Your task to perform on an android device: What is the capital of Japan? Image 0: 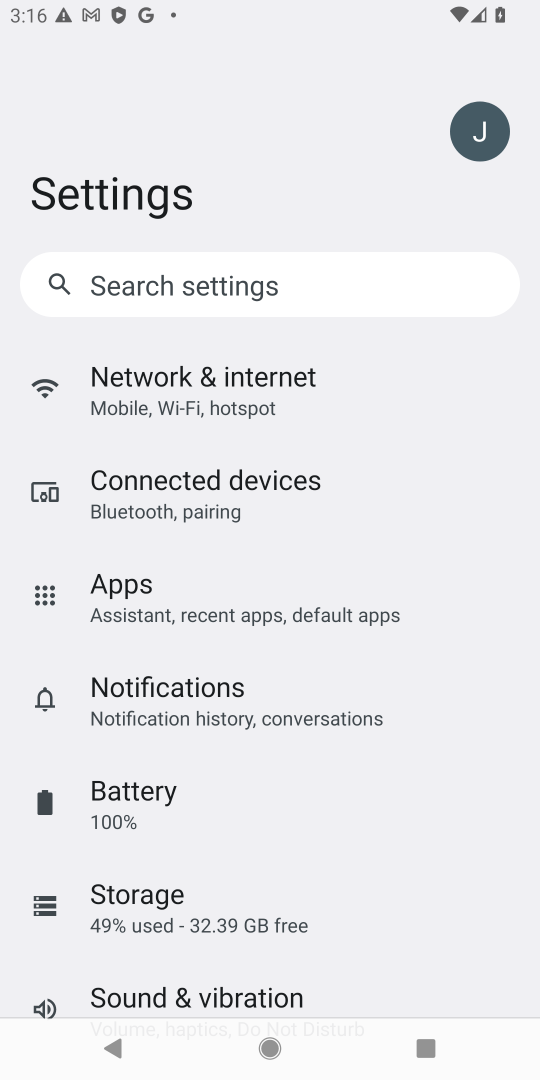
Step 0: press home button
Your task to perform on an android device: What is the capital of Japan? Image 1: 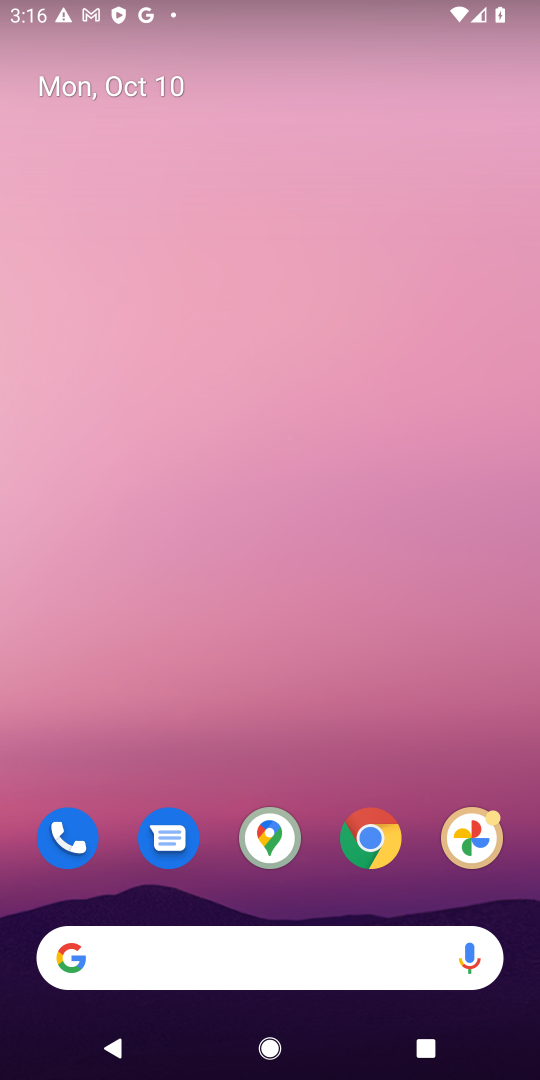
Step 1: click (379, 844)
Your task to perform on an android device: What is the capital of Japan? Image 2: 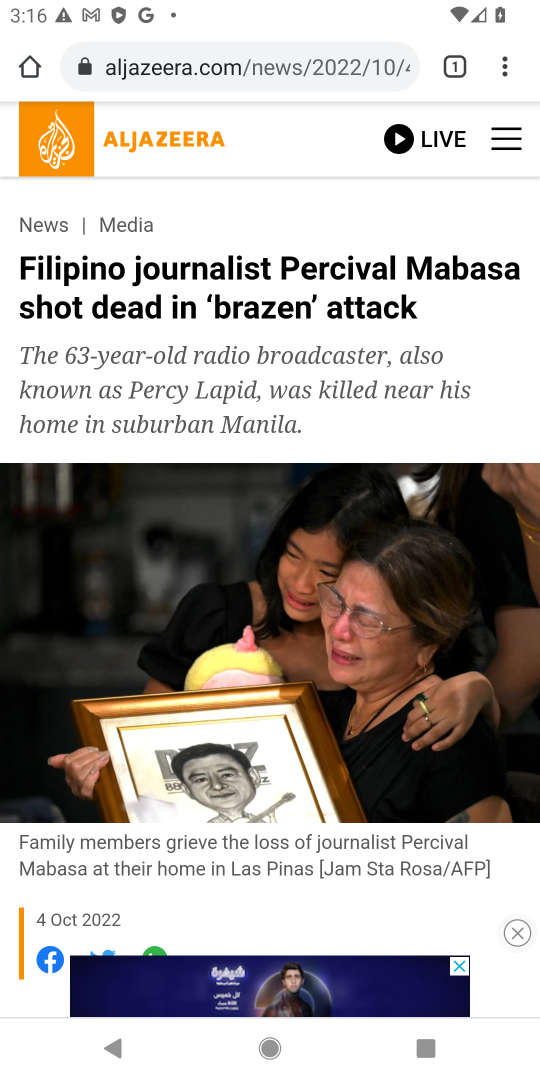
Step 2: click (247, 61)
Your task to perform on an android device: What is the capital of Japan? Image 3: 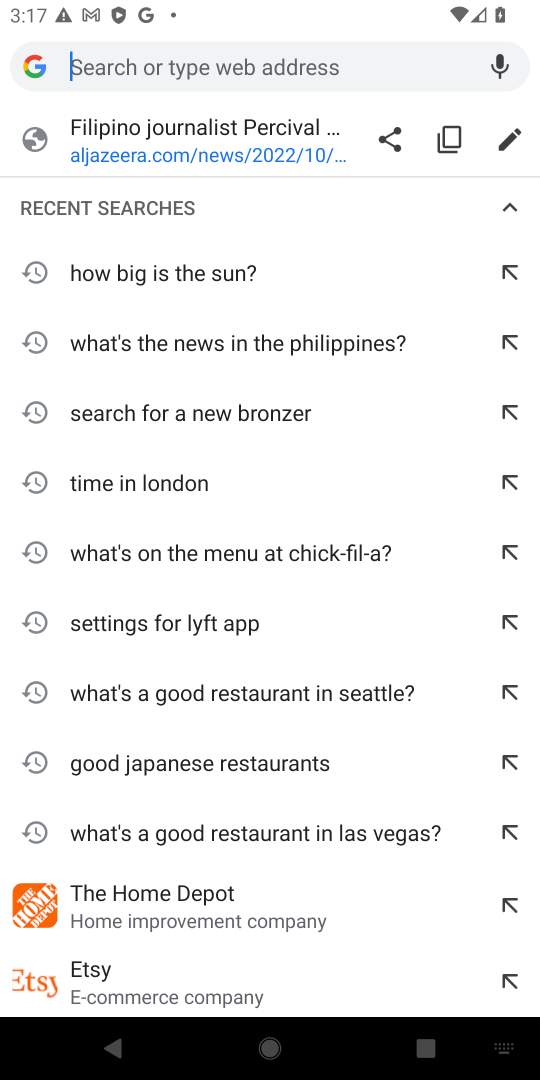
Step 3: type "capital of japan ?"
Your task to perform on an android device: What is the capital of Japan? Image 4: 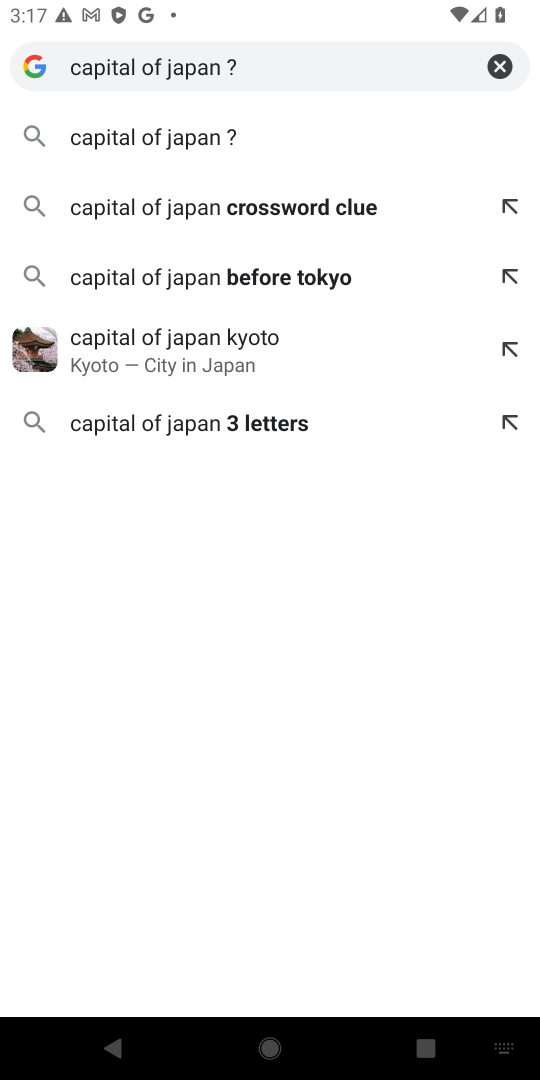
Step 4: click (200, 141)
Your task to perform on an android device: What is the capital of Japan? Image 5: 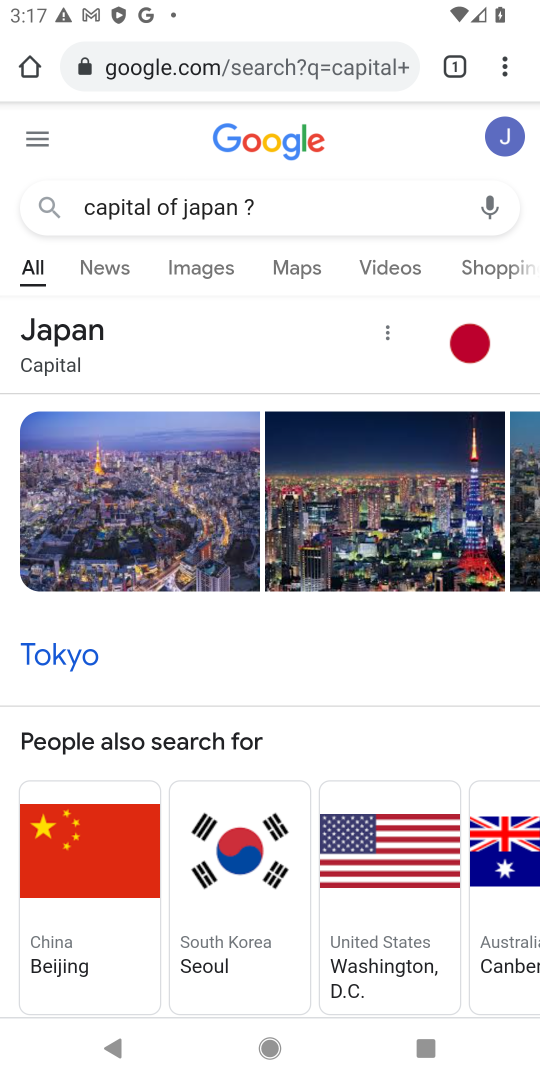
Step 5: task complete